Your task to perform on an android device: turn off location history Image 0: 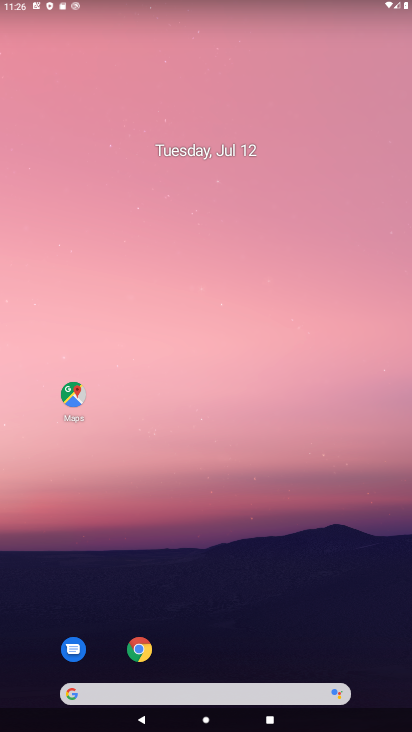
Step 0: click (73, 395)
Your task to perform on an android device: turn off location history Image 1: 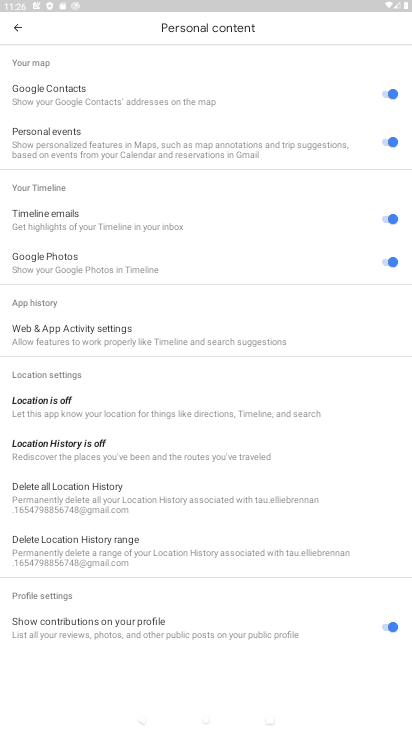
Step 1: click (54, 458)
Your task to perform on an android device: turn off location history Image 2: 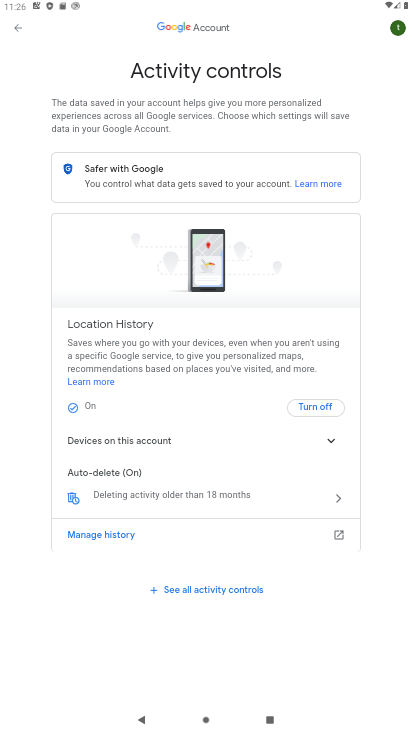
Step 2: click (314, 406)
Your task to perform on an android device: turn off location history Image 3: 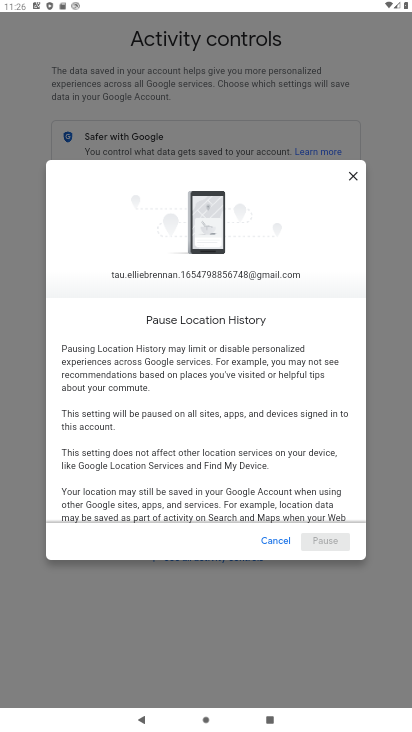
Step 3: drag from (283, 483) to (260, 115)
Your task to perform on an android device: turn off location history Image 4: 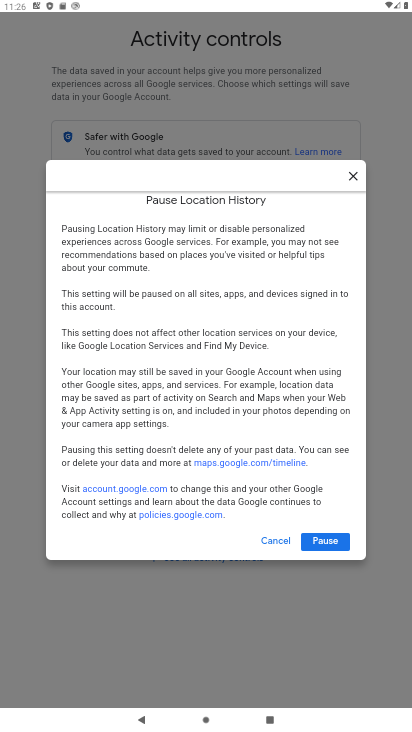
Step 4: click (324, 544)
Your task to perform on an android device: turn off location history Image 5: 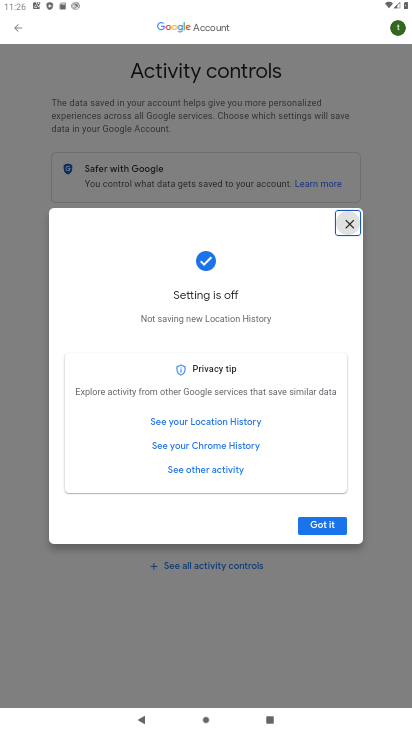
Step 5: click (325, 523)
Your task to perform on an android device: turn off location history Image 6: 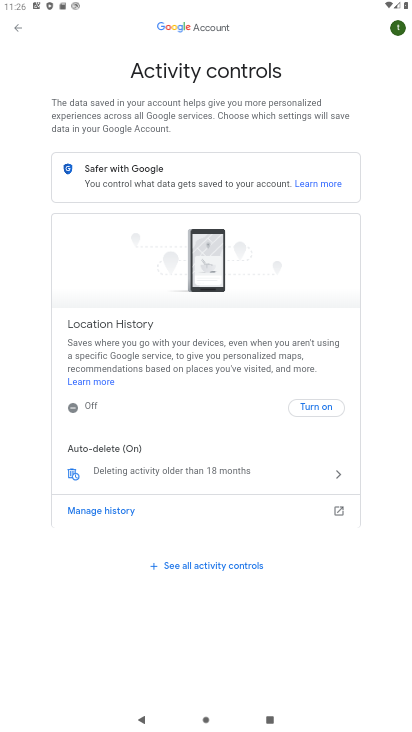
Step 6: task complete